Your task to perform on an android device: turn on translation in the chrome app Image 0: 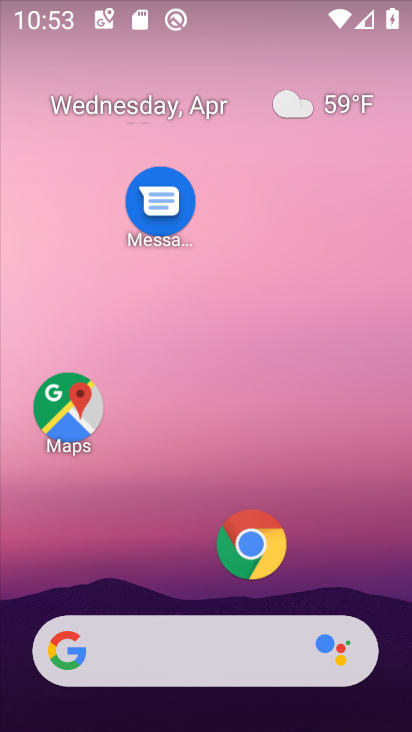
Step 0: drag from (61, 394) to (219, 346)
Your task to perform on an android device: turn on translation in the chrome app Image 1: 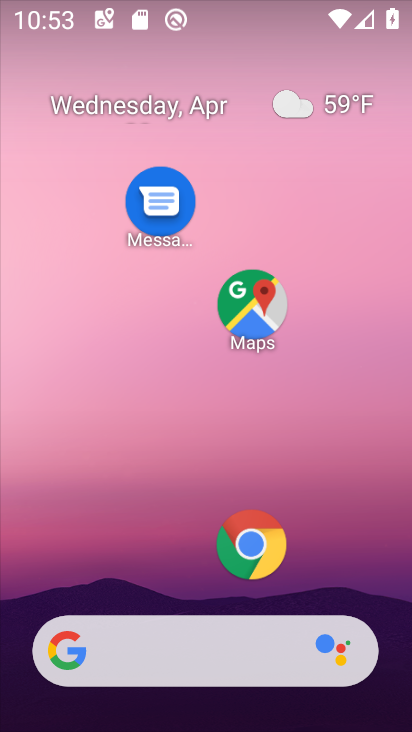
Step 1: click (240, 518)
Your task to perform on an android device: turn on translation in the chrome app Image 2: 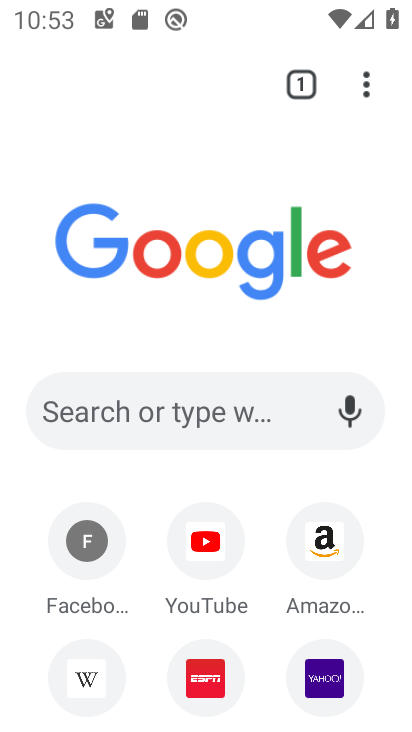
Step 2: click (360, 85)
Your task to perform on an android device: turn on translation in the chrome app Image 3: 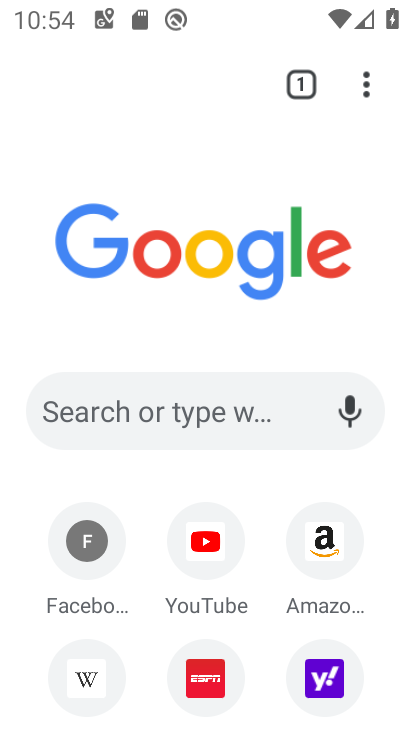
Step 3: drag from (359, 94) to (132, 594)
Your task to perform on an android device: turn on translation in the chrome app Image 4: 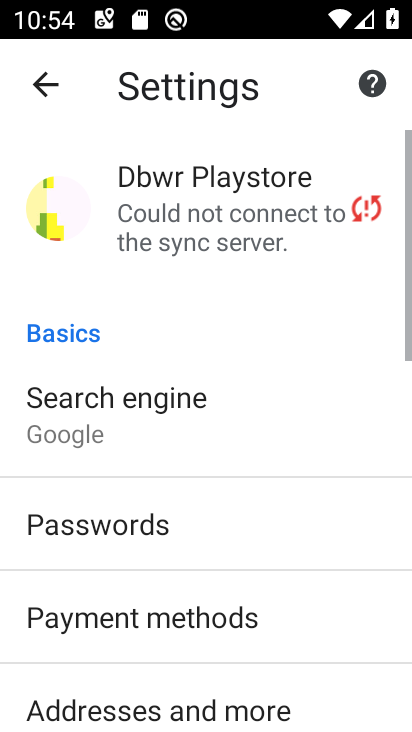
Step 4: drag from (185, 617) to (217, 247)
Your task to perform on an android device: turn on translation in the chrome app Image 5: 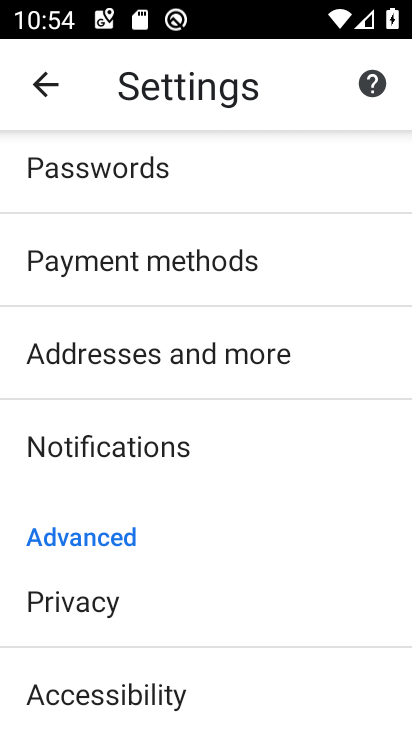
Step 5: drag from (152, 683) to (167, 389)
Your task to perform on an android device: turn on translation in the chrome app Image 6: 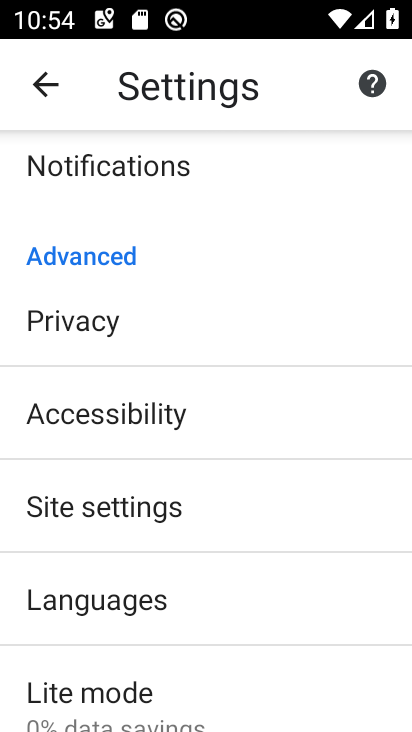
Step 6: click (138, 579)
Your task to perform on an android device: turn on translation in the chrome app Image 7: 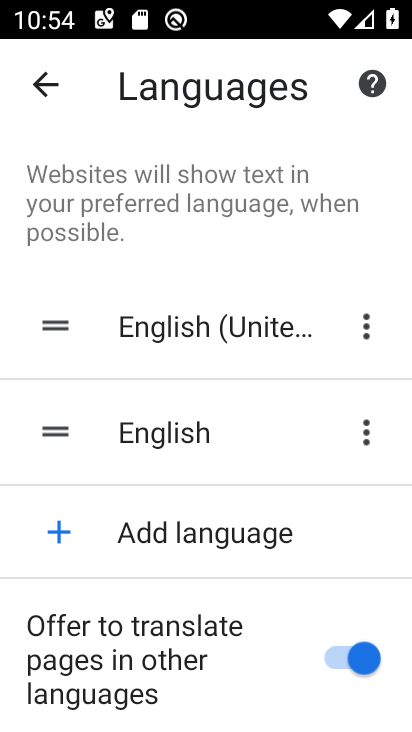
Step 7: task complete